Your task to perform on an android device: Go to wifi settings Image 0: 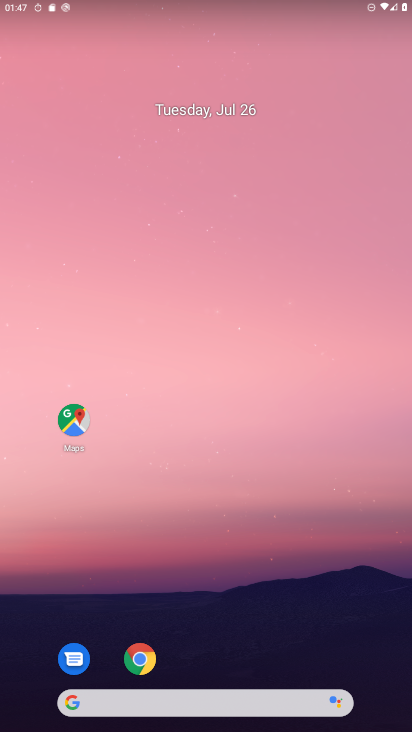
Step 0: drag from (39, 637) to (172, 236)
Your task to perform on an android device: Go to wifi settings Image 1: 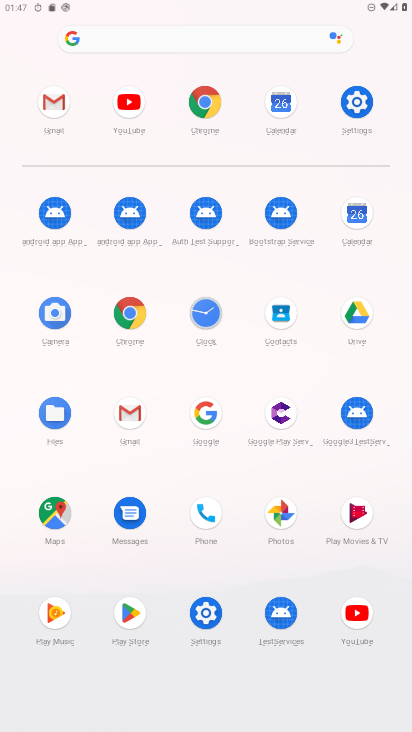
Step 1: click (200, 615)
Your task to perform on an android device: Go to wifi settings Image 2: 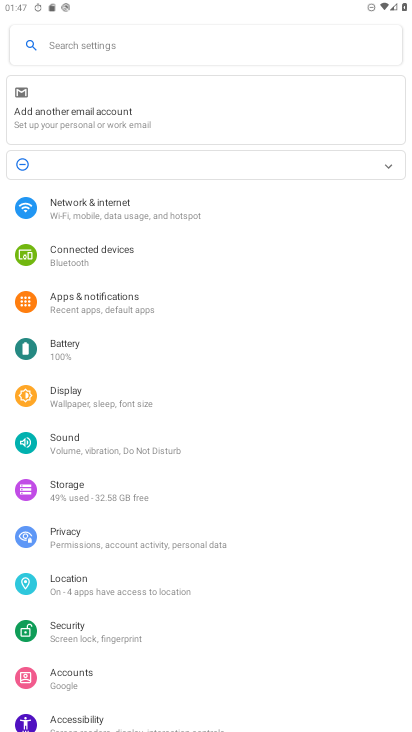
Step 2: click (71, 209)
Your task to perform on an android device: Go to wifi settings Image 3: 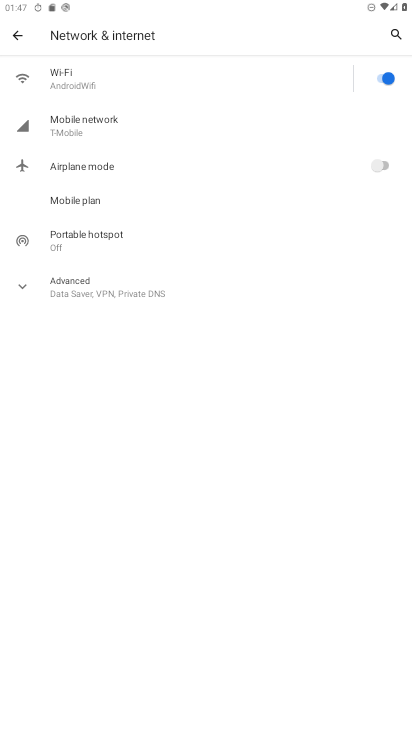
Step 3: click (80, 80)
Your task to perform on an android device: Go to wifi settings Image 4: 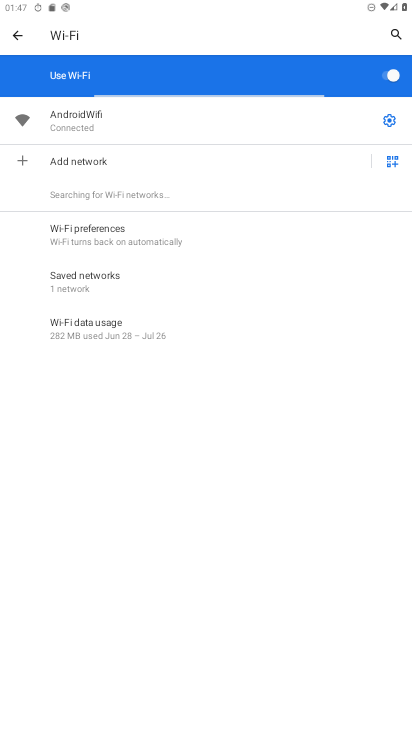
Step 4: task complete